Your task to perform on an android device: turn off javascript in the chrome app Image 0: 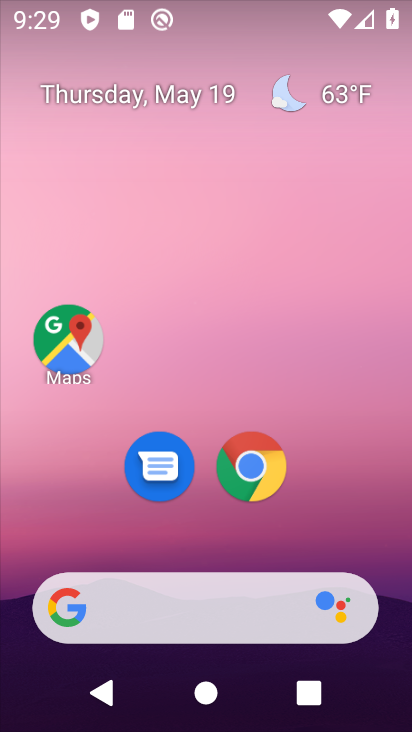
Step 0: drag from (385, 624) to (334, 31)
Your task to perform on an android device: turn off javascript in the chrome app Image 1: 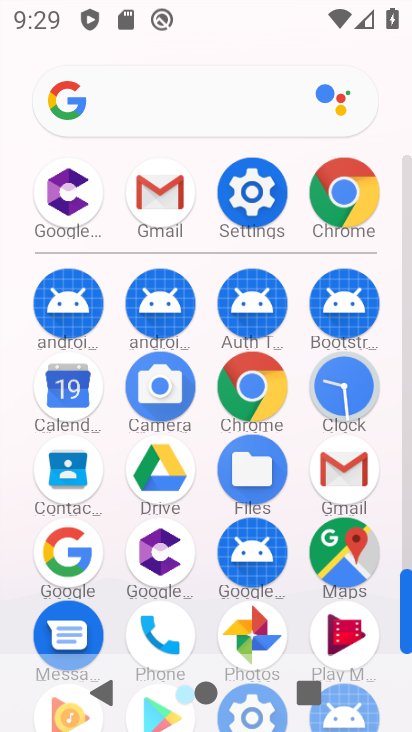
Step 1: click (330, 189)
Your task to perform on an android device: turn off javascript in the chrome app Image 2: 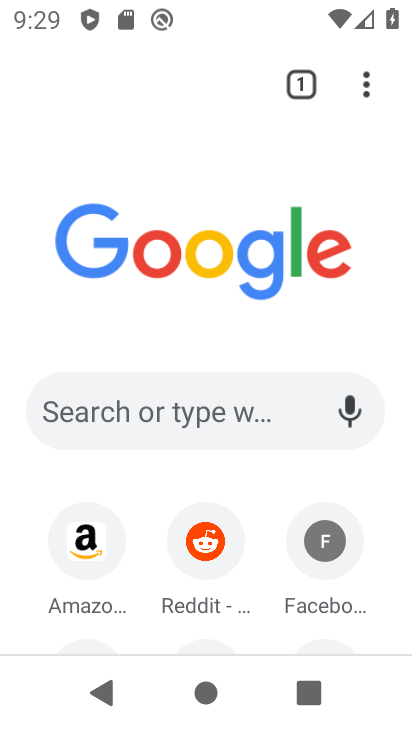
Step 2: click (385, 77)
Your task to perform on an android device: turn off javascript in the chrome app Image 3: 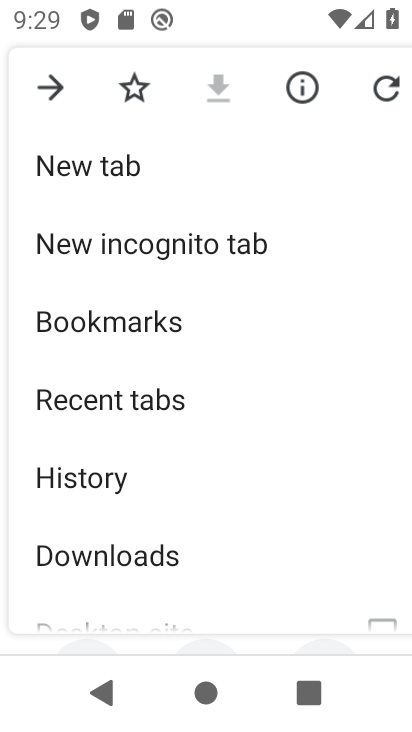
Step 3: drag from (237, 615) to (297, 110)
Your task to perform on an android device: turn off javascript in the chrome app Image 4: 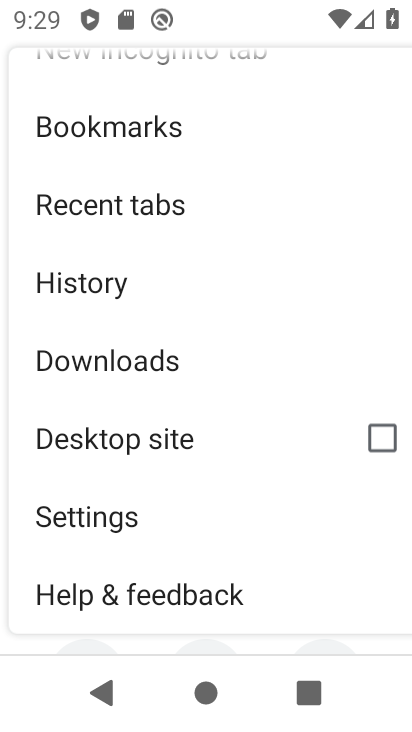
Step 4: click (109, 519)
Your task to perform on an android device: turn off javascript in the chrome app Image 5: 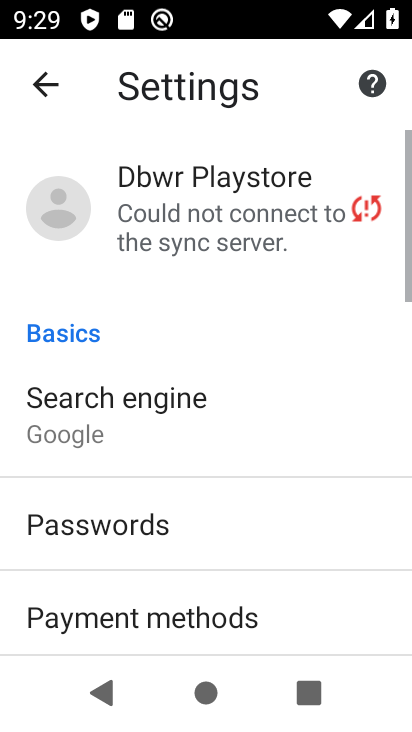
Step 5: drag from (149, 585) to (246, 138)
Your task to perform on an android device: turn off javascript in the chrome app Image 6: 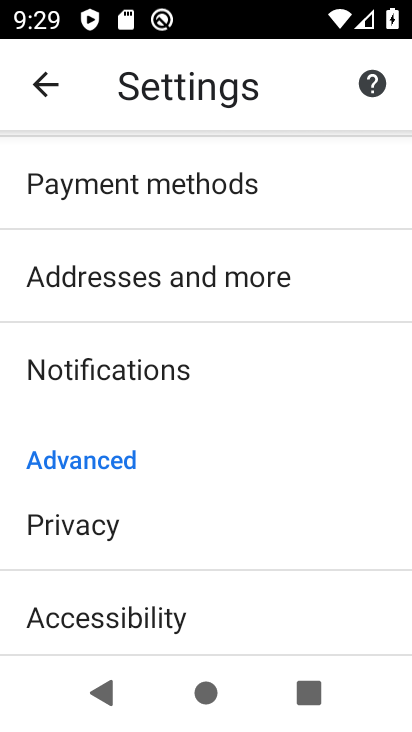
Step 6: drag from (161, 602) to (225, 195)
Your task to perform on an android device: turn off javascript in the chrome app Image 7: 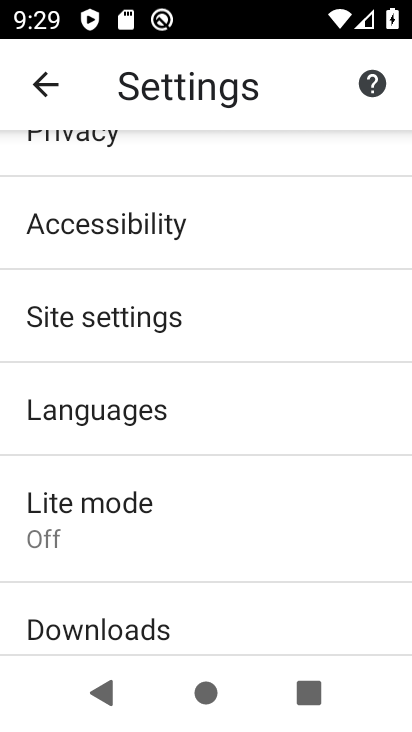
Step 7: click (183, 330)
Your task to perform on an android device: turn off javascript in the chrome app Image 8: 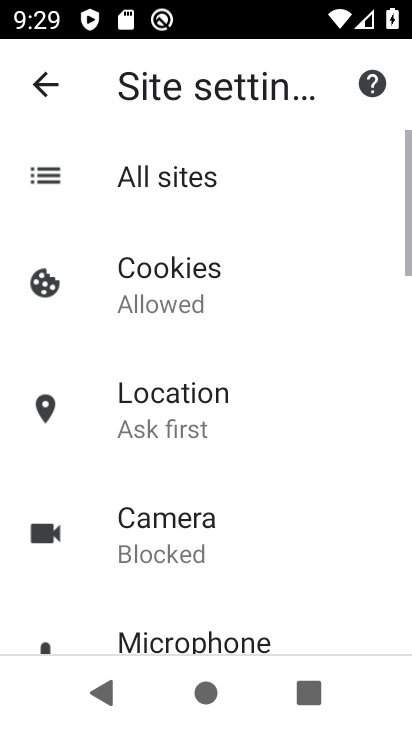
Step 8: drag from (191, 623) to (258, 132)
Your task to perform on an android device: turn off javascript in the chrome app Image 9: 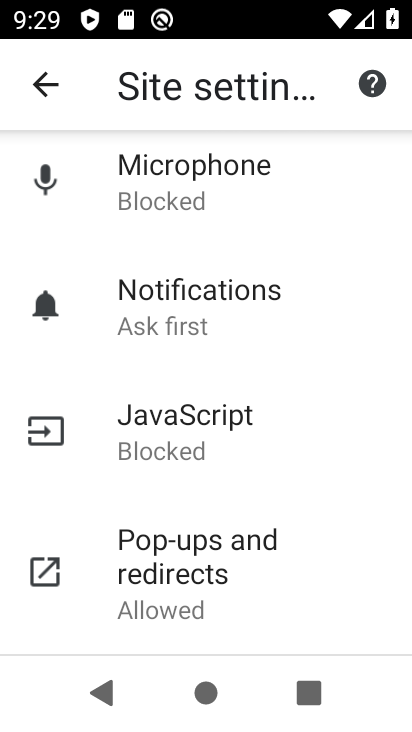
Step 9: click (229, 451)
Your task to perform on an android device: turn off javascript in the chrome app Image 10: 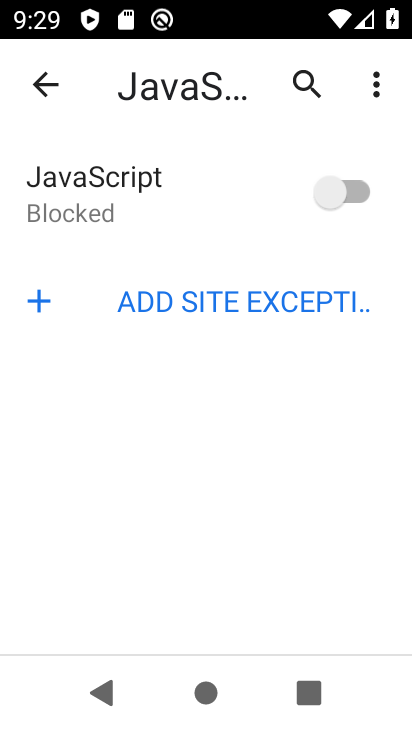
Step 10: task complete